Your task to perform on an android device: remove spam from my inbox in the gmail app Image 0: 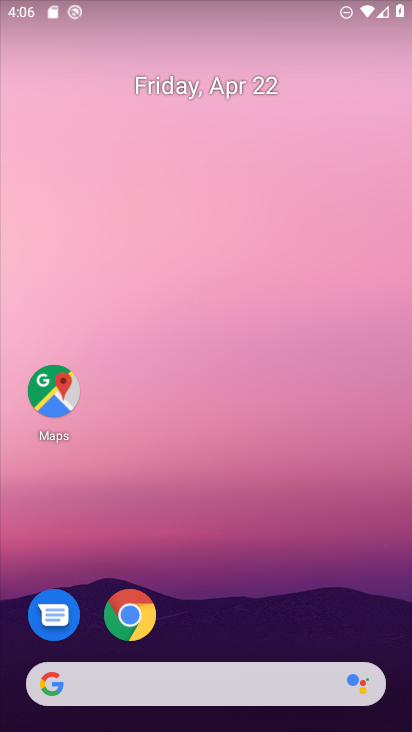
Step 0: drag from (290, 593) to (283, 47)
Your task to perform on an android device: remove spam from my inbox in the gmail app Image 1: 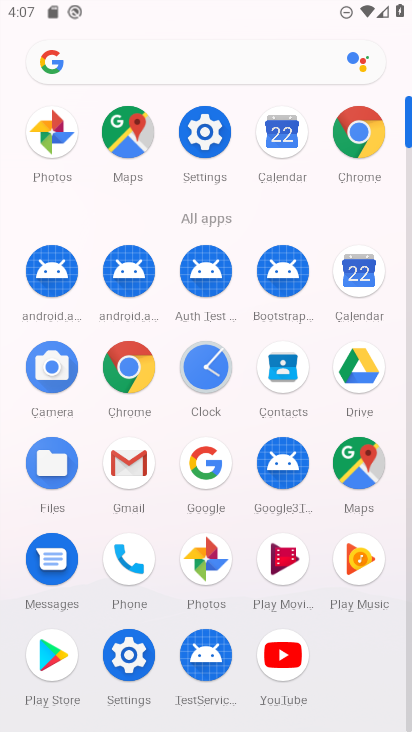
Step 1: click (130, 463)
Your task to perform on an android device: remove spam from my inbox in the gmail app Image 2: 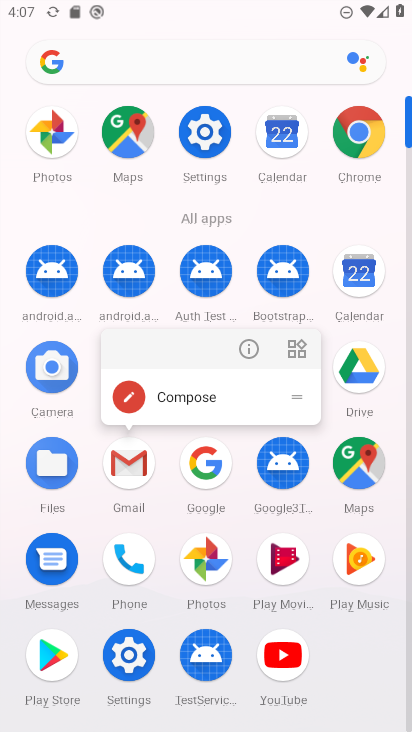
Step 2: click (133, 470)
Your task to perform on an android device: remove spam from my inbox in the gmail app Image 3: 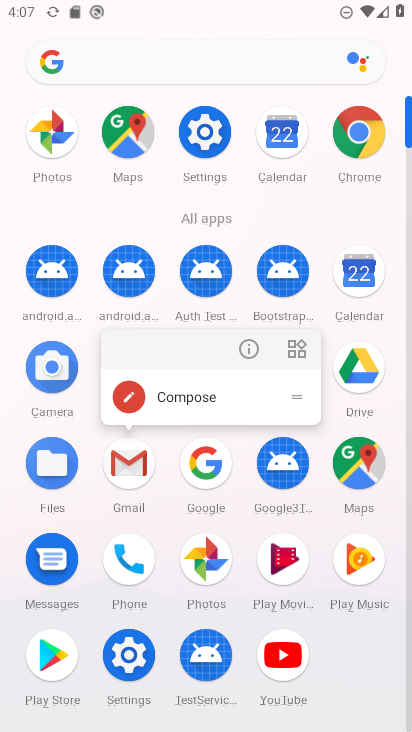
Step 3: click (133, 470)
Your task to perform on an android device: remove spam from my inbox in the gmail app Image 4: 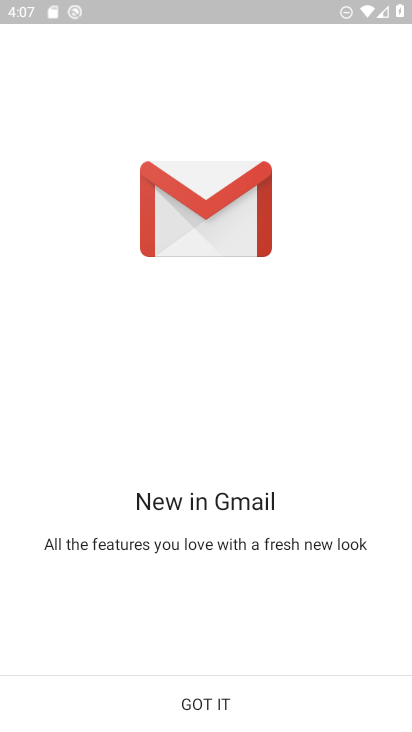
Step 4: click (173, 696)
Your task to perform on an android device: remove spam from my inbox in the gmail app Image 5: 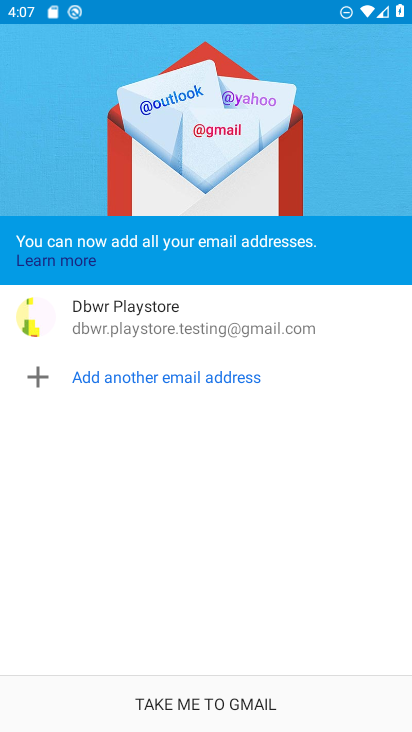
Step 5: click (173, 689)
Your task to perform on an android device: remove spam from my inbox in the gmail app Image 6: 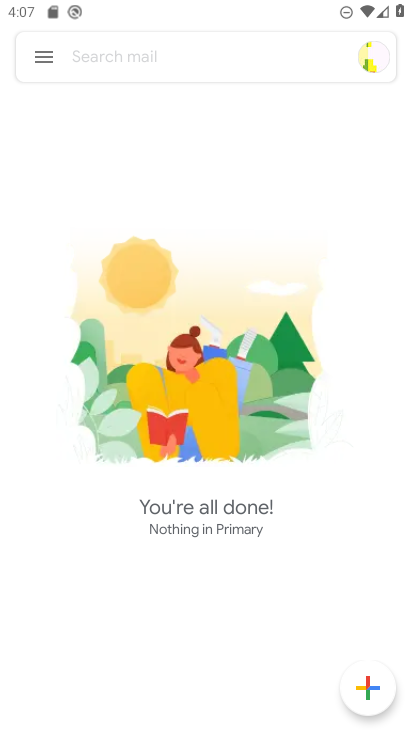
Step 6: click (36, 53)
Your task to perform on an android device: remove spam from my inbox in the gmail app Image 7: 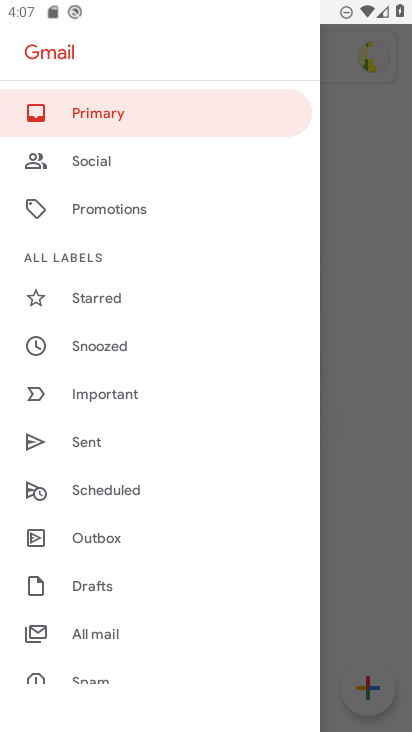
Step 7: drag from (160, 612) to (163, 233)
Your task to perform on an android device: remove spam from my inbox in the gmail app Image 8: 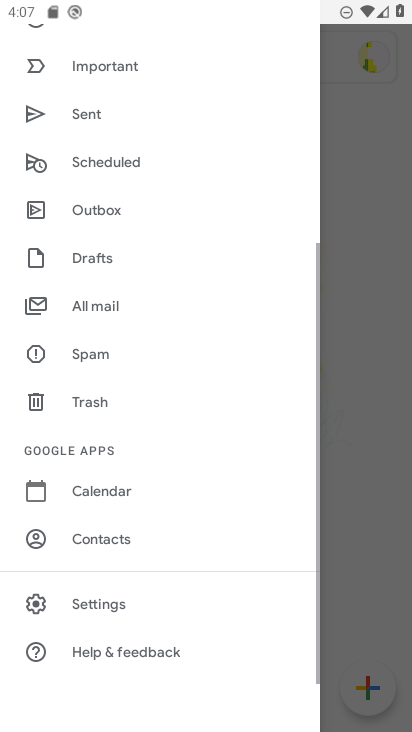
Step 8: click (95, 363)
Your task to perform on an android device: remove spam from my inbox in the gmail app Image 9: 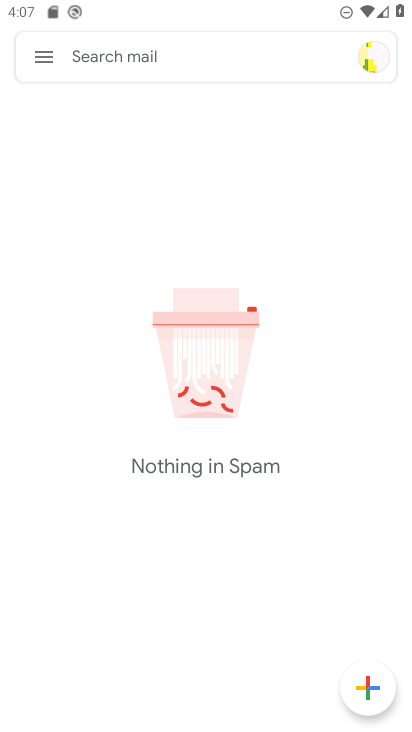
Step 9: task complete